Your task to perform on an android device: change timer sound Image 0: 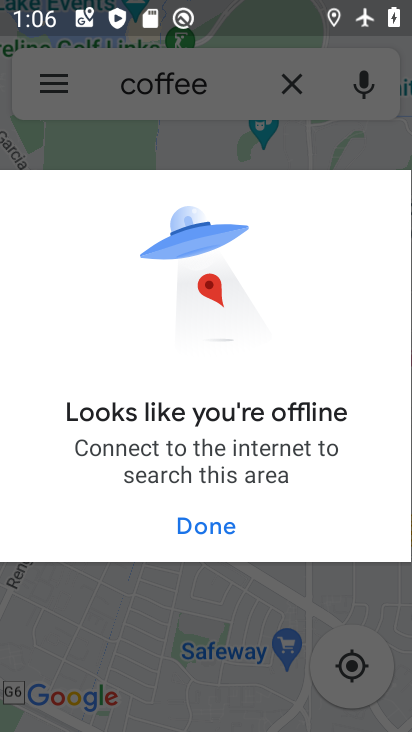
Step 0: press home button
Your task to perform on an android device: change timer sound Image 1: 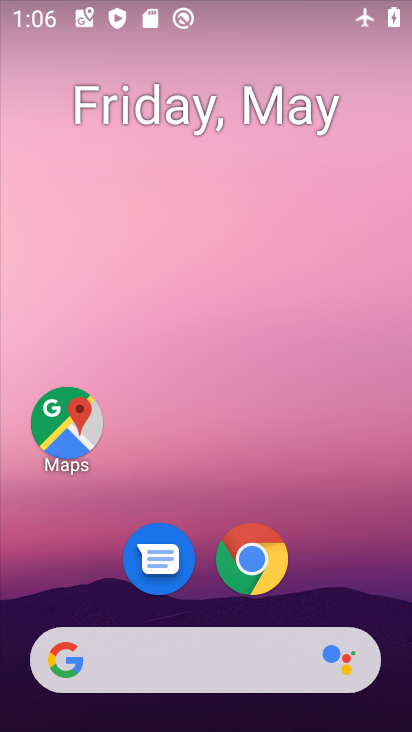
Step 1: drag from (321, 520) to (179, 105)
Your task to perform on an android device: change timer sound Image 2: 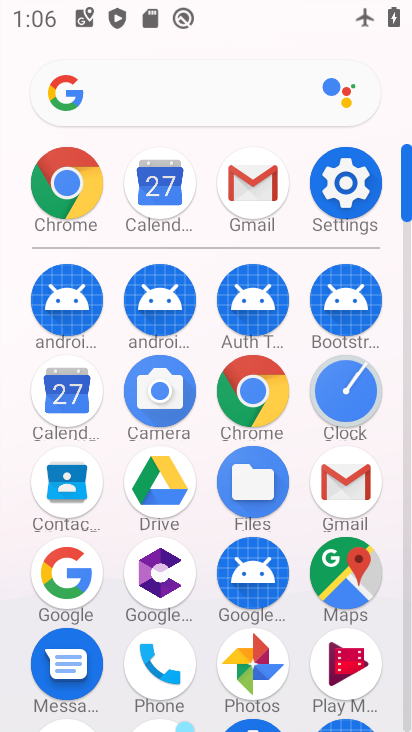
Step 2: click (334, 176)
Your task to perform on an android device: change timer sound Image 3: 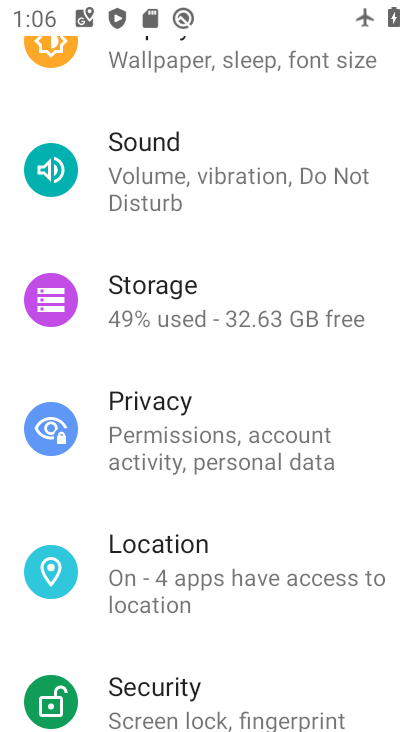
Step 3: press home button
Your task to perform on an android device: change timer sound Image 4: 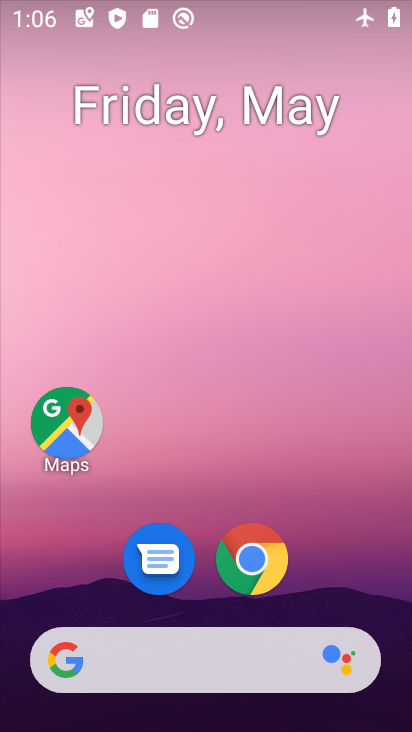
Step 4: drag from (333, 569) to (262, 98)
Your task to perform on an android device: change timer sound Image 5: 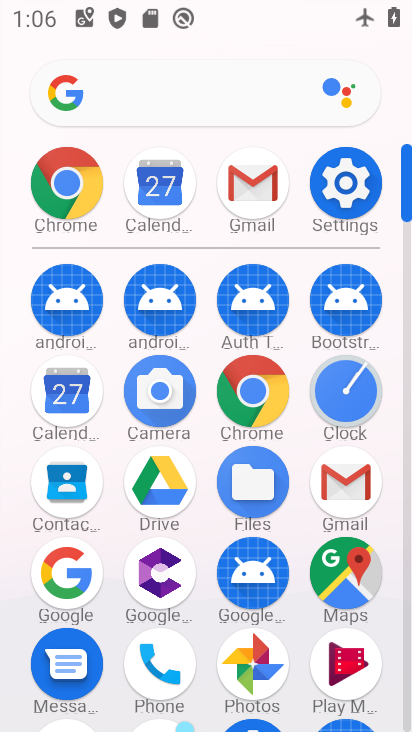
Step 5: click (331, 382)
Your task to perform on an android device: change timer sound Image 6: 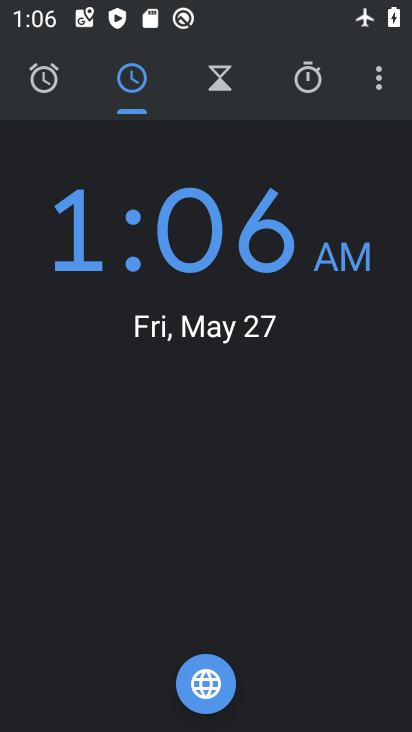
Step 6: click (371, 74)
Your task to perform on an android device: change timer sound Image 7: 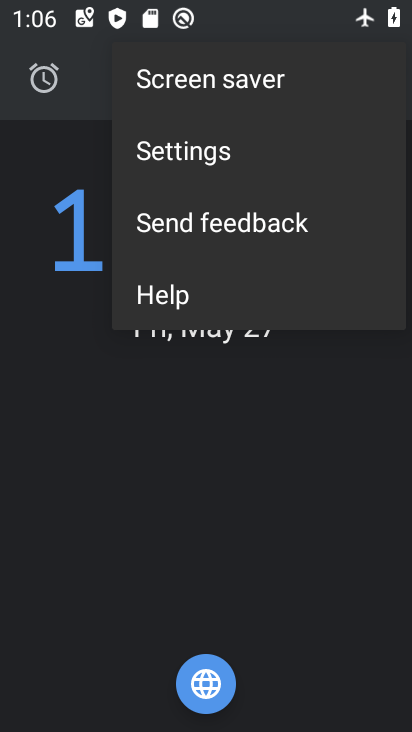
Step 7: click (243, 159)
Your task to perform on an android device: change timer sound Image 8: 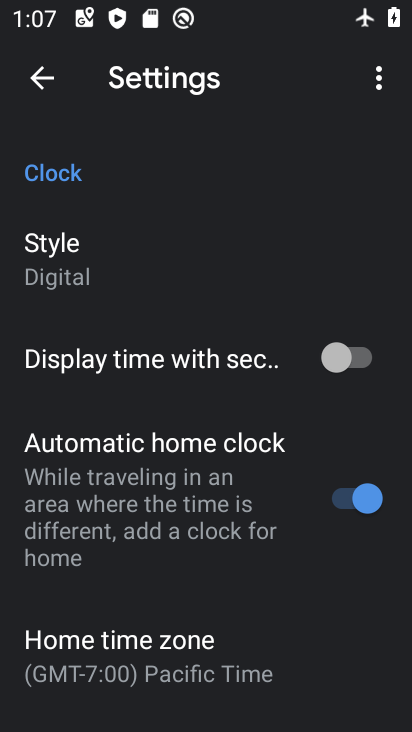
Step 8: drag from (203, 584) to (104, 70)
Your task to perform on an android device: change timer sound Image 9: 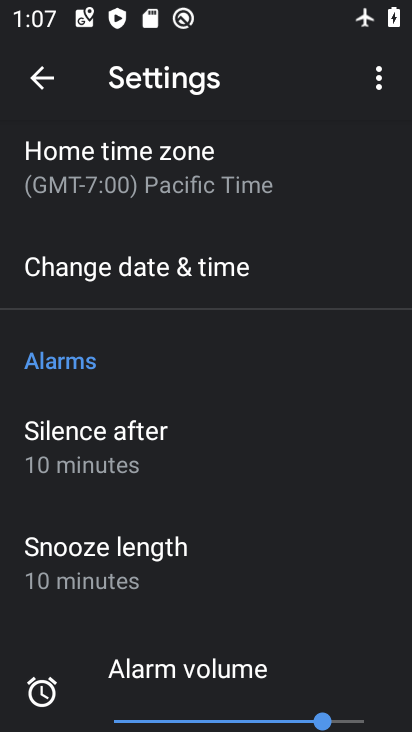
Step 9: drag from (138, 516) to (139, 183)
Your task to perform on an android device: change timer sound Image 10: 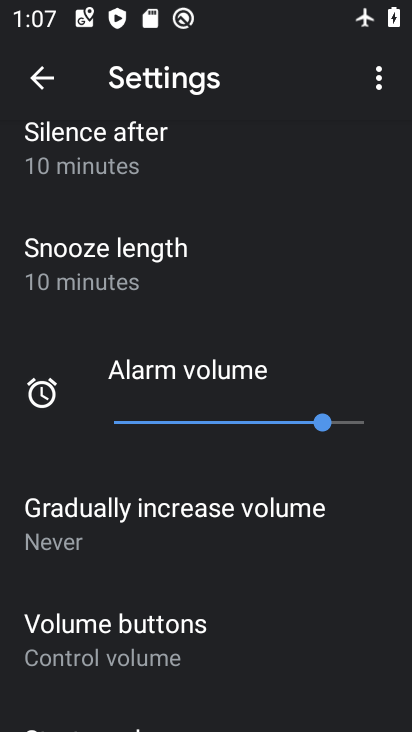
Step 10: drag from (158, 560) to (100, 211)
Your task to perform on an android device: change timer sound Image 11: 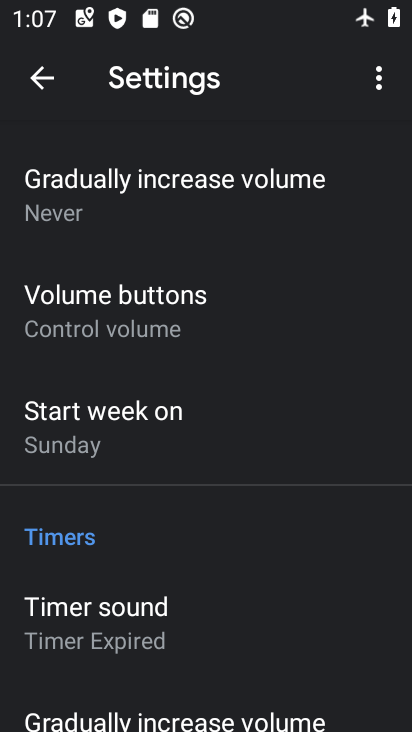
Step 11: drag from (268, 539) to (277, 221)
Your task to perform on an android device: change timer sound Image 12: 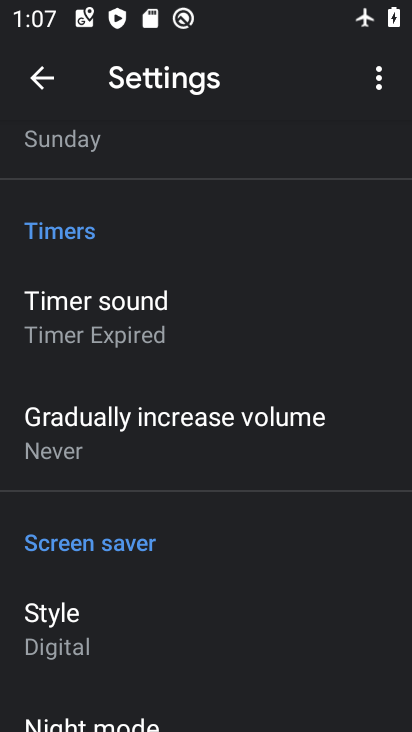
Step 12: click (148, 325)
Your task to perform on an android device: change timer sound Image 13: 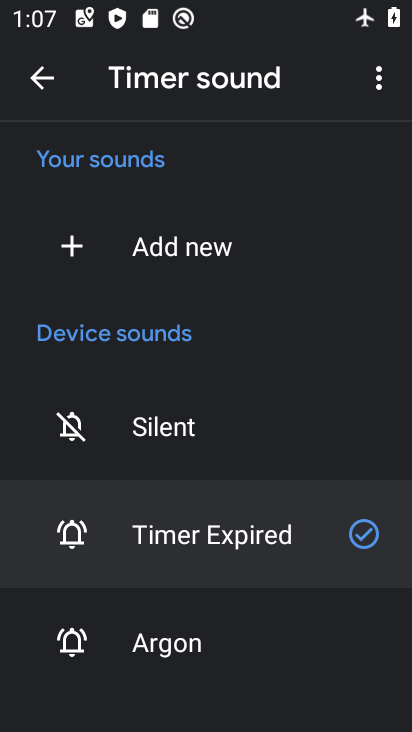
Step 13: click (145, 637)
Your task to perform on an android device: change timer sound Image 14: 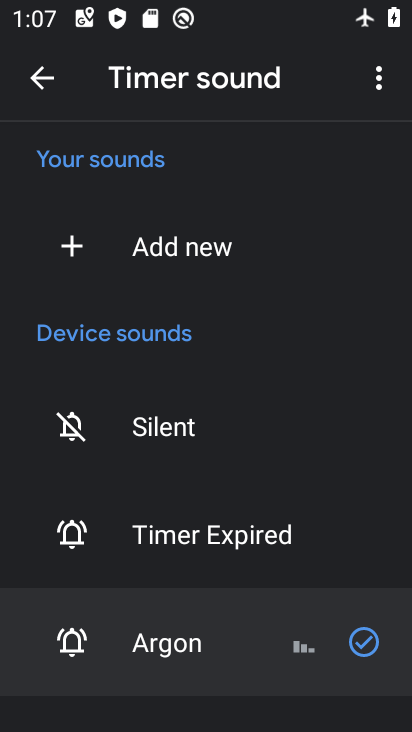
Step 14: task complete